Your task to perform on an android device: open device folders in google photos Image 0: 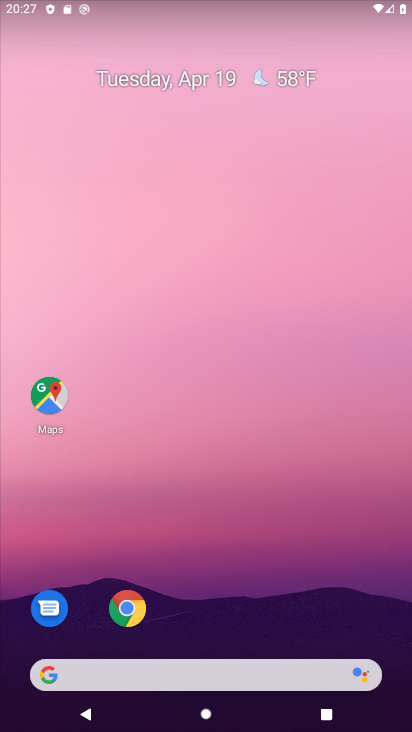
Step 0: drag from (216, 598) to (272, 41)
Your task to perform on an android device: open device folders in google photos Image 1: 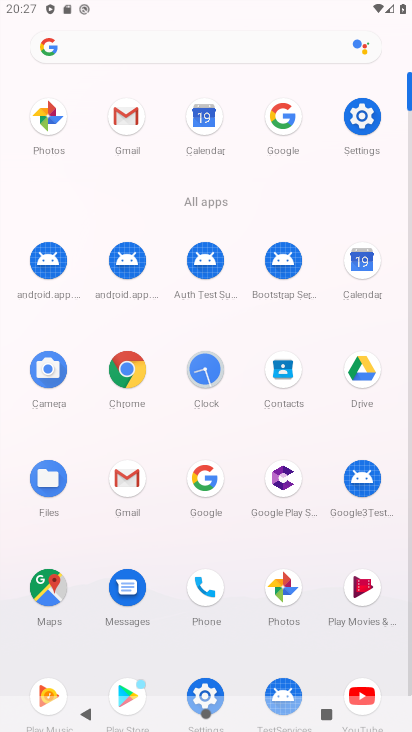
Step 1: click (46, 119)
Your task to perform on an android device: open device folders in google photos Image 2: 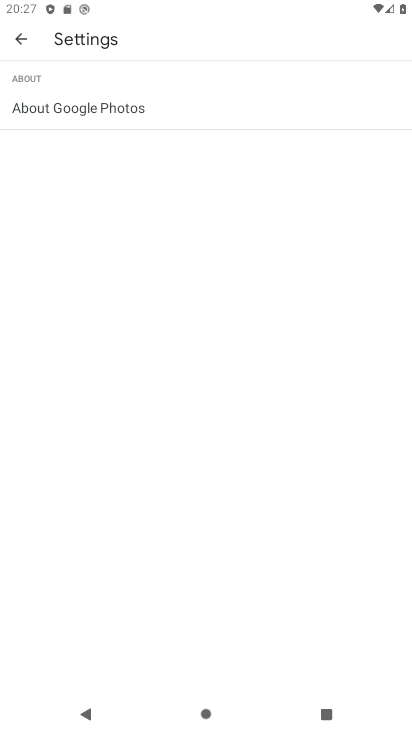
Step 2: press back button
Your task to perform on an android device: open device folders in google photos Image 3: 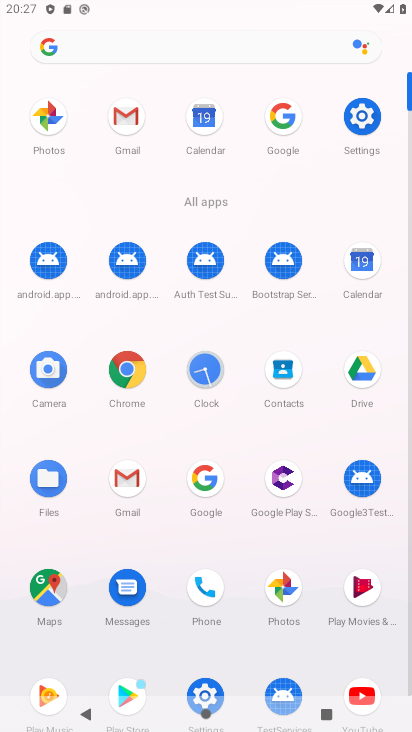
Step 3: click (47, 118)
Your task to perform on an android device: open device folders in google photos Image 4: 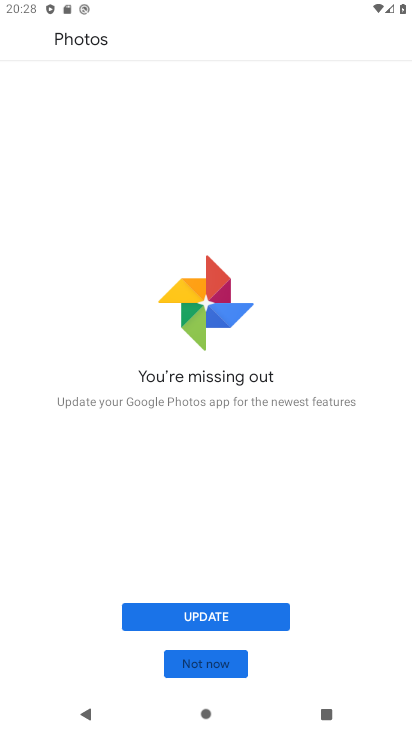
Step 4: click (220, 621)
Your task to perform on an android device: open device folders in google photos Image 5: 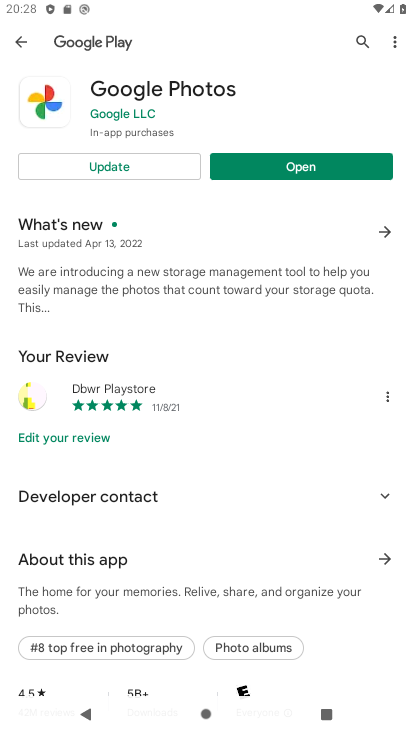
Step 5: click (231, 163)
Your task to perform on an android device: open device folders in google photos Image 6: 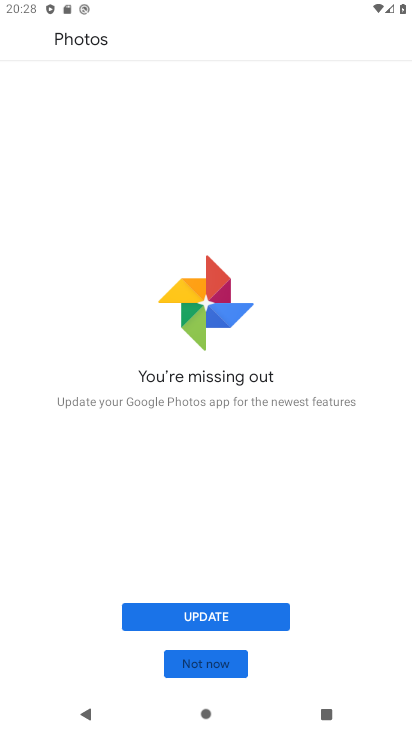
Step 6: click (203, 664)
Your task to perform on an android device: open device folders in google photos Image 7: 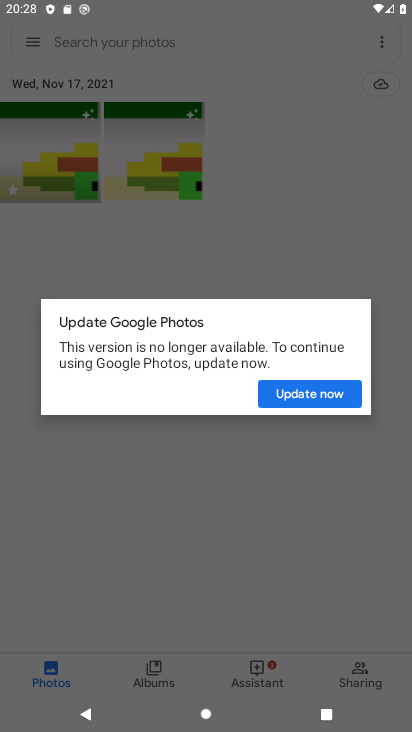
Step 7: click (330, 180)
Your task to perform on an android device: open device folders in google photos Image 8: 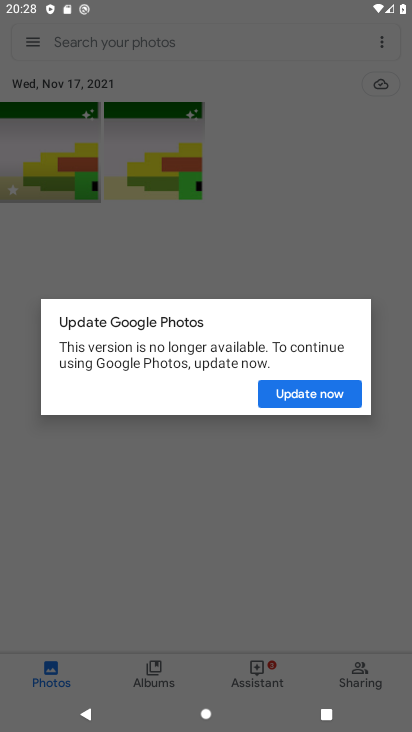
Step 8: click (215, 604)
Your task to perform on an android device: open device folders in google photos Image 9: 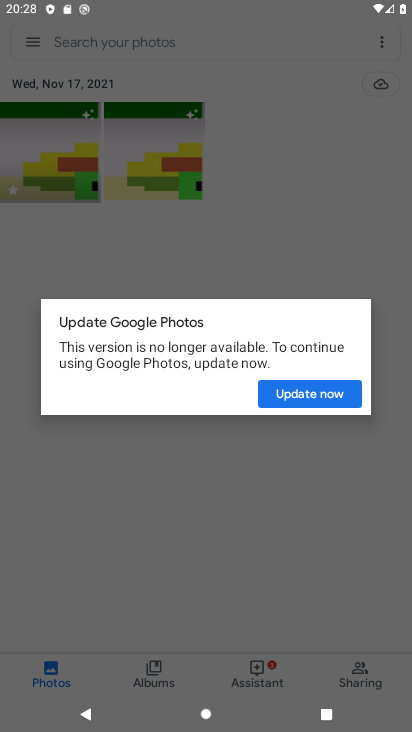
Step 9: click (328, 334)
Your task to perform on an android device: open device folders in google photos Image 10: 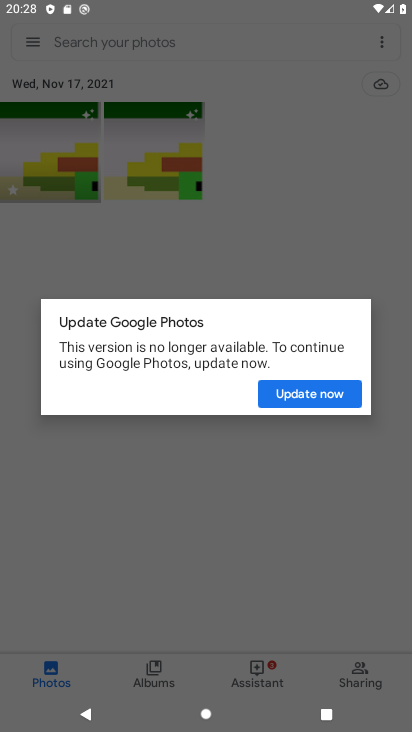
Step 10: click (328, 334)
Your task to perform on an android device: open device folders in google photos Image 11: 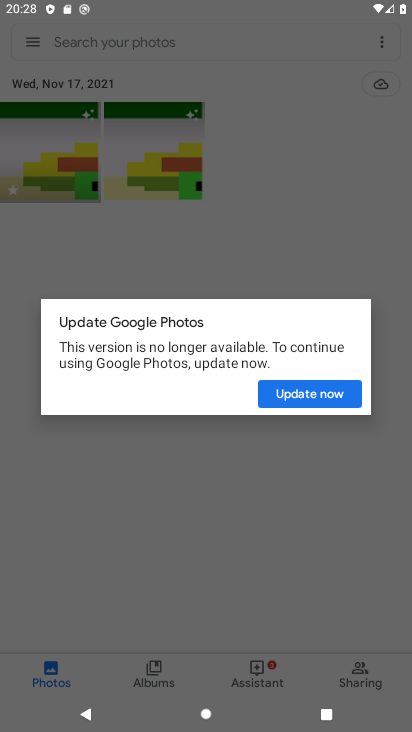
Step 11: click (298, 391)
Your task to perform on an android device: open device folders in google photos Image 12: 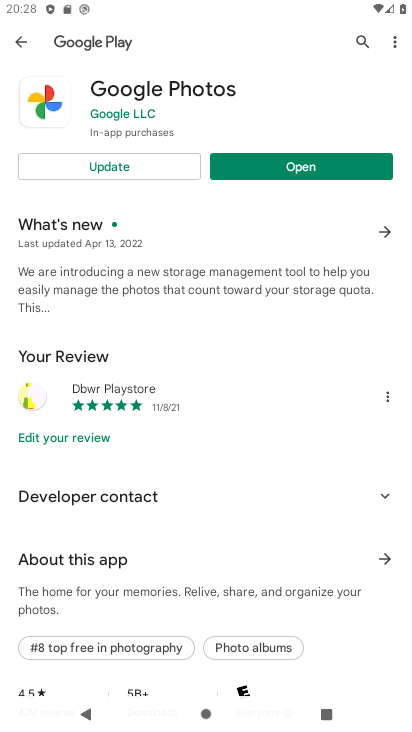
Step 12: click (159, 173)
Your task to perform on an android device: open device folders in google photos Image 13: 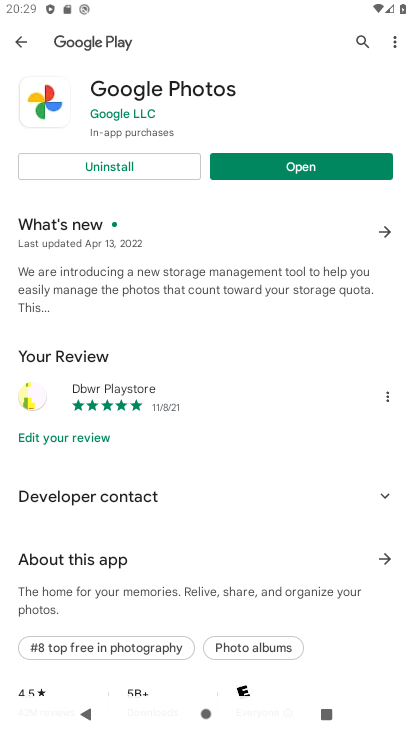
Step 13: click (286, 174)
Your task to perform on an android device: open device folders in google photos Image 14: 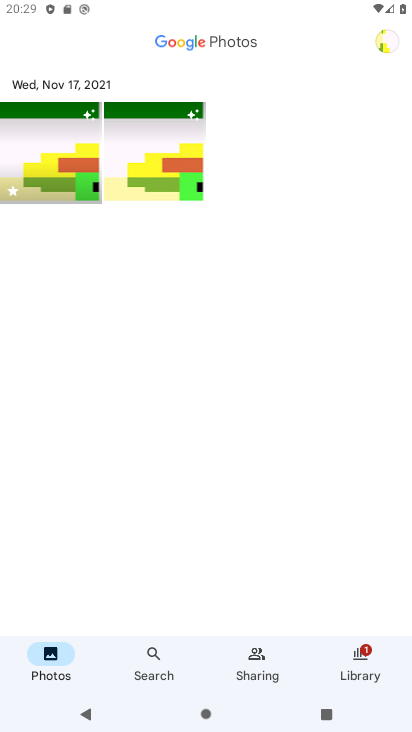
Step 14: click (388, 43)
Your task to perform on an android device: open device folders in google photos Image 15: 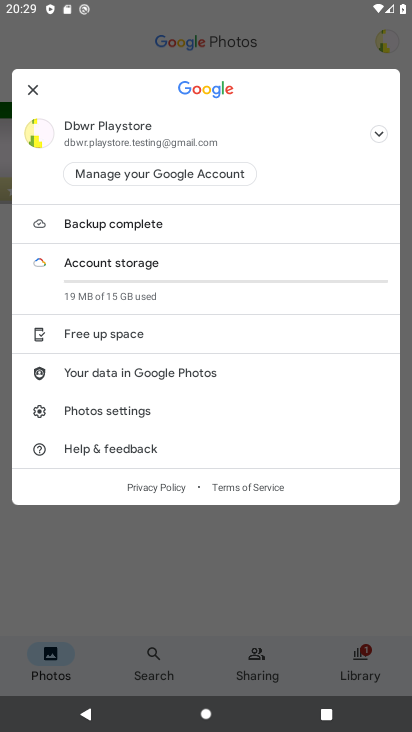
Step 15: click (142, 412)
Your task to perform on an android device: open device folders in google photos Image 16: 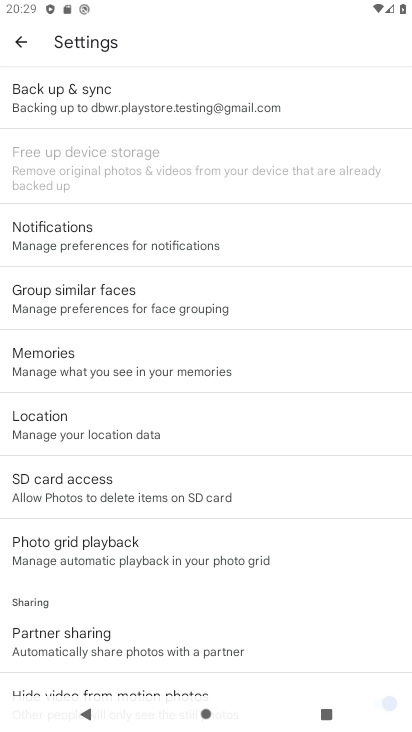
Step 16: click (164, 113)
Your task to perform on an android device: open device folders in google photos Image 17: 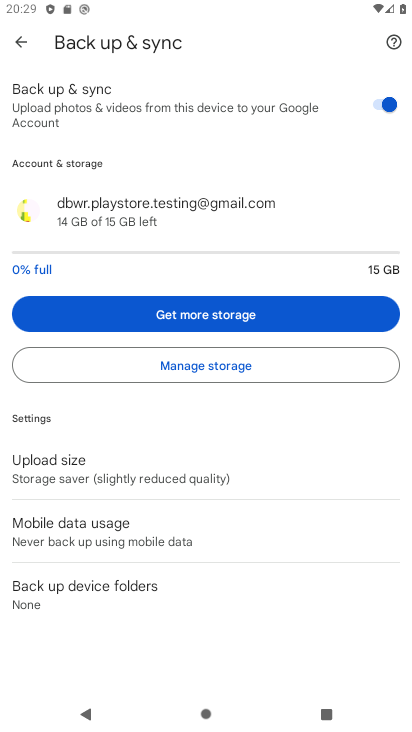
Step 17: click (129, 581)
Your task to perform on an android device: open device folders in google photos Image 18: 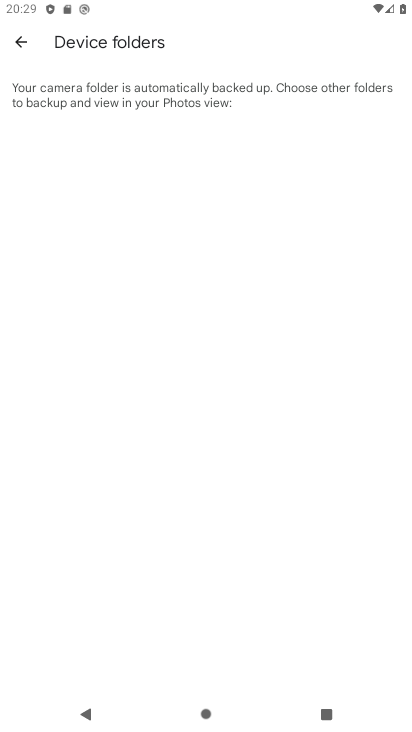
Step 18: task complete